Your task to perform on an android device: turn off notifications in google photos Image 0: 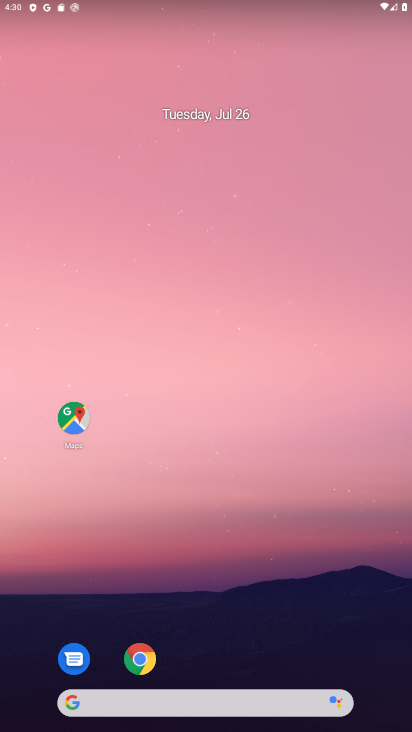
Step 0: press home button
Your task to perform on an android device: turn off notifications in google photos Image 1: 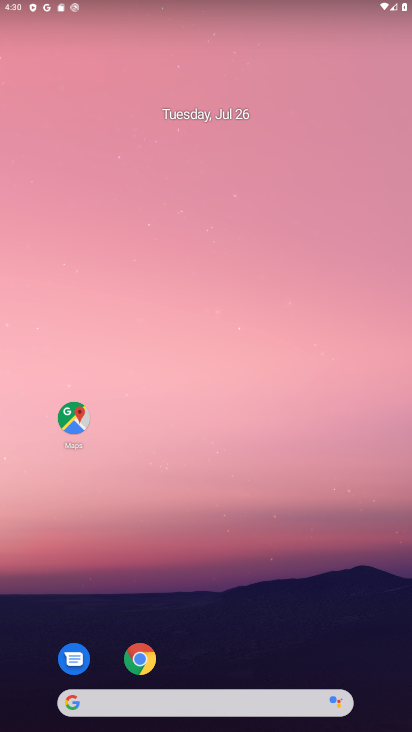
Step 1: drag from (200, 664) to (210, 58)
Your task to perform on an android device: turn off notifications in google photos Image 2: 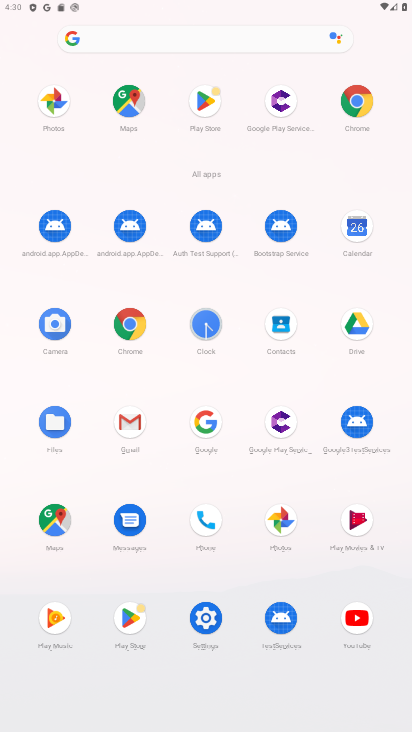
Step 2: click (274, 517)
Your task to perform on an android device: turn off notifications in google photos Image 3: 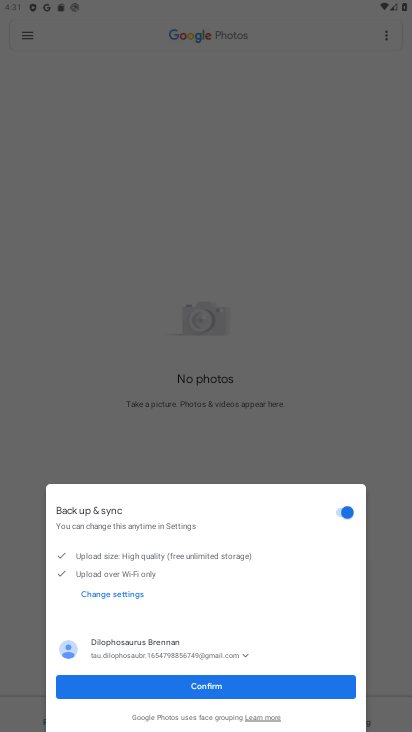
Step 3: click (198, 674)
Your task to perform on an android device: turn off notifications in google photos Image 4: 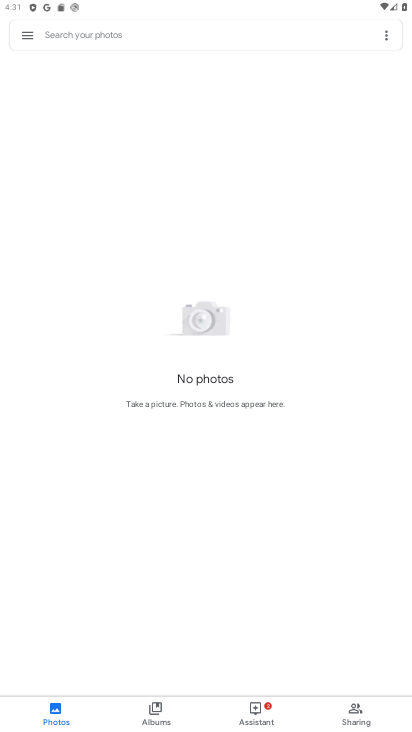
Step 4: click (25, 31)
Your task to perform on an android device: turn off notifications in google photos Image 5: 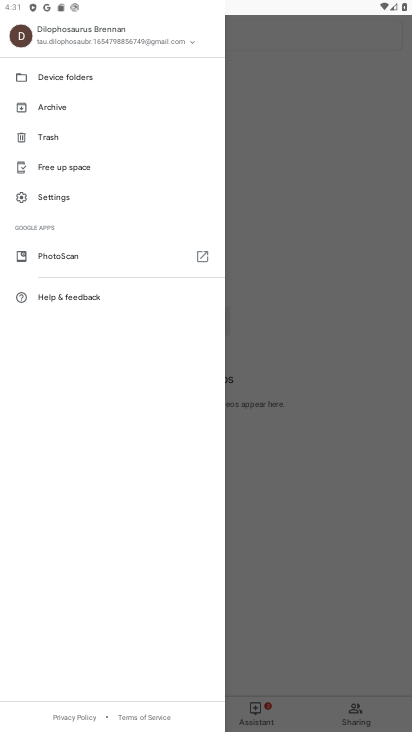
Step 5: click (46, 199)
Your task to perform on an android device: turn off notifications in google photos Image 6: 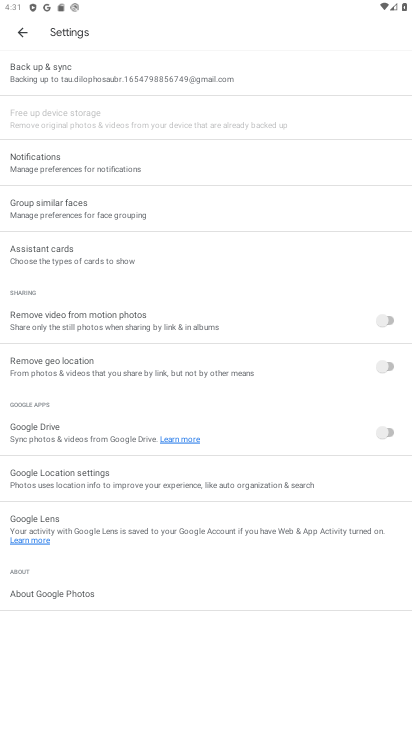
Step 6: click (42, 164)
Your task to perform on an android device: turn off notifications in google photos Image 7: 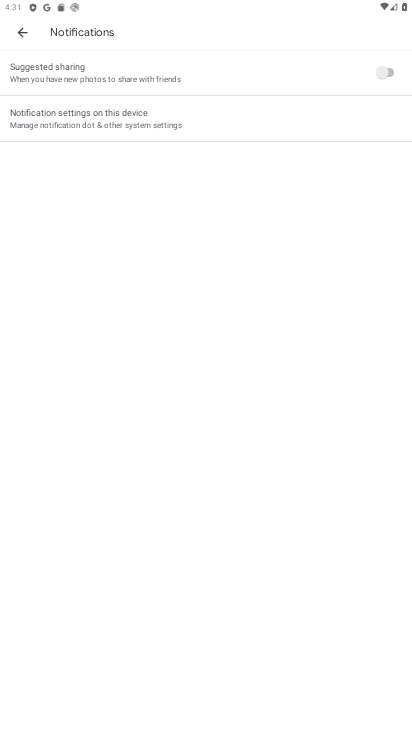
Step 7: click (136, 122)
Your task to perform on an android device: turn off notifications in google photos Image 8: 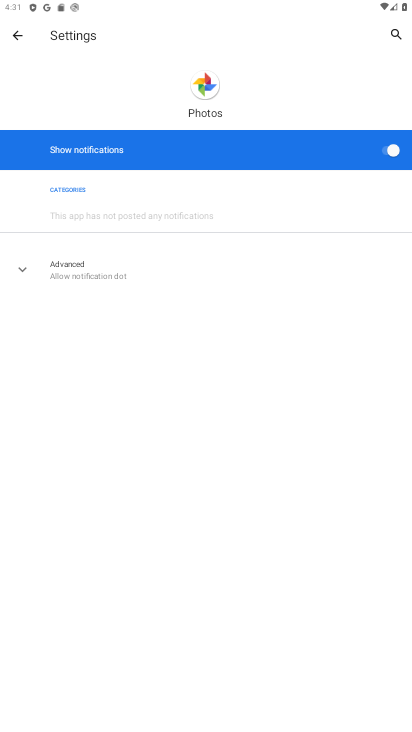
Step 8: click (387, 145)
Your task to perform on an android device: turn off notifications in google photos Image 9: 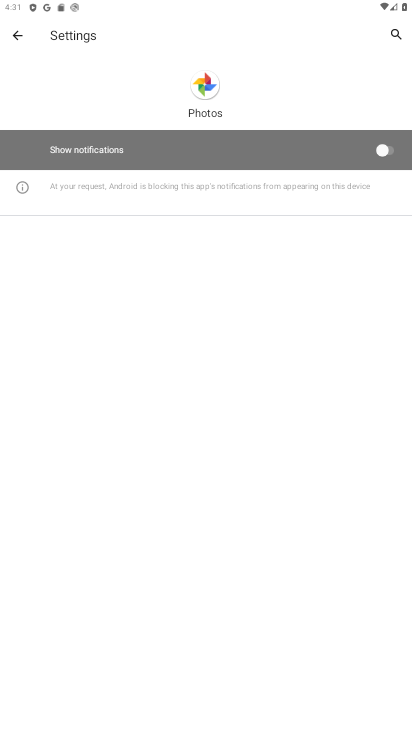
Step 9: task complete